Your task to perform on an android device: change the clock display to analog Image 0: 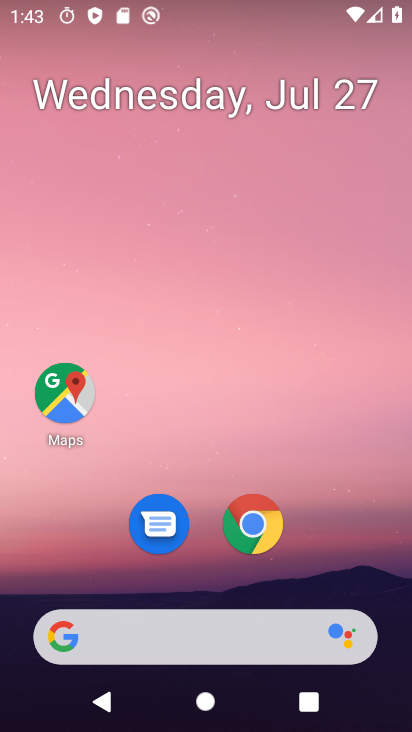
Step 0: drag from (355, 530) to (318, 53)
Your task to perform on an android device: change the clock display to analog Image 1: 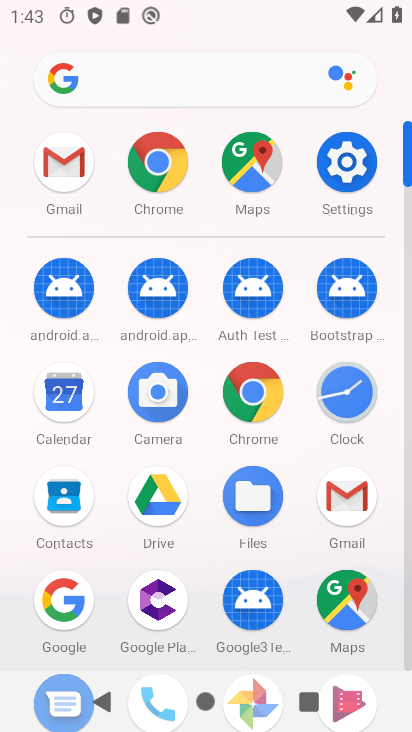
Step 1: click (350, 164)
Your task to perform on an android device: change the clock display to analog Image 2: 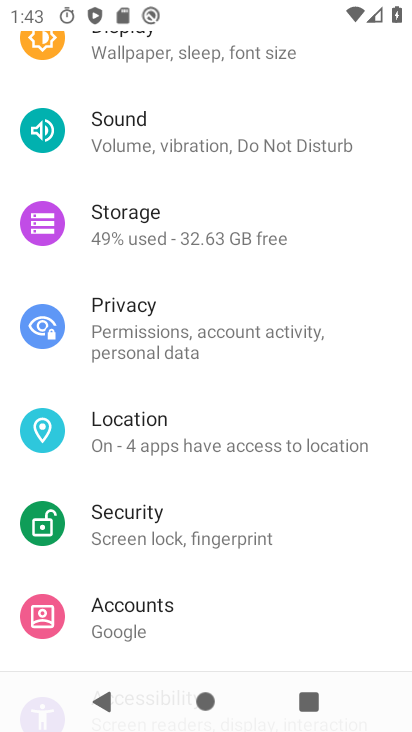
Step 2: press home button
Your task to perform on an android device: change the clock display to analog Image 3: 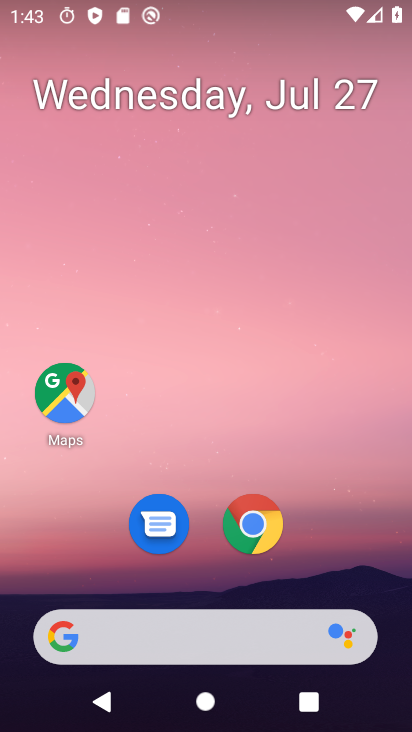
Step 3: drag from (322, 558) to (386, 55)
Your task to perform on an android device: change the clock display to analog Image 4: 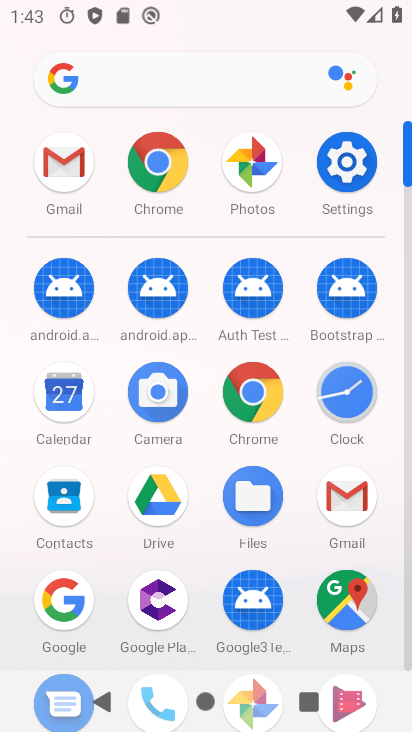
Step 4: click (342, 391)
Your task to perform on an android device: change the clock display to analog Image 5: 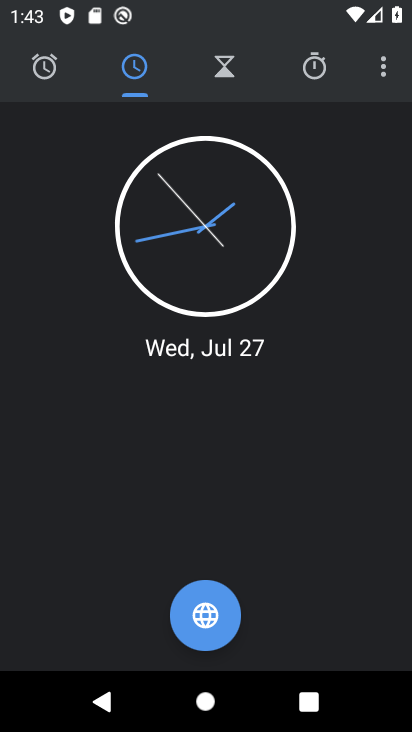
Step 5: task complete